Your task to perform on an android device: Go to Yahoo.com Image 0: 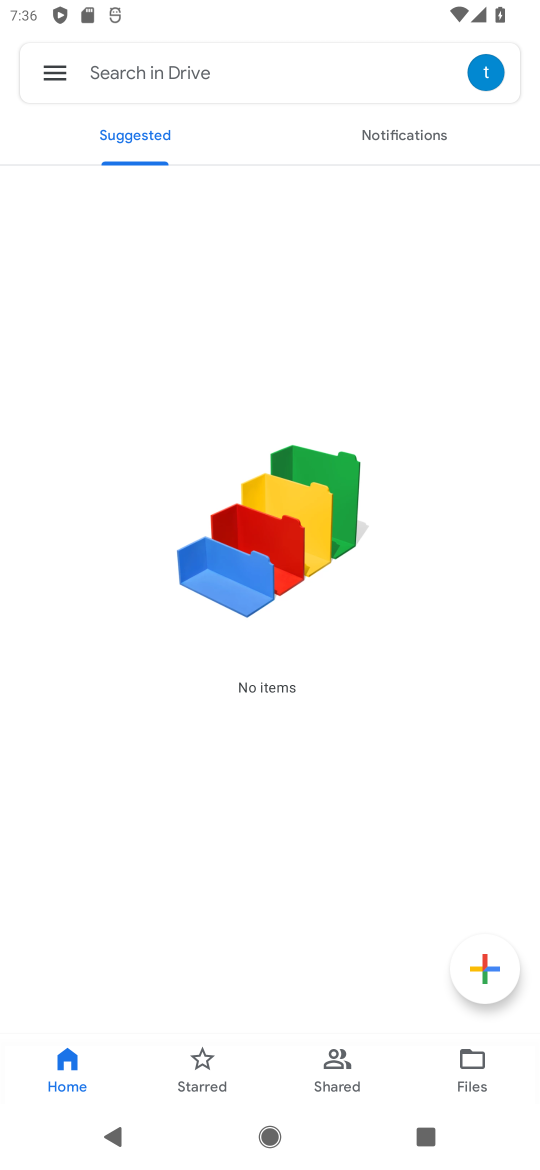
Step 0: press home button
Your task to perform on an android device: Go to Yahoo.com Image 1: 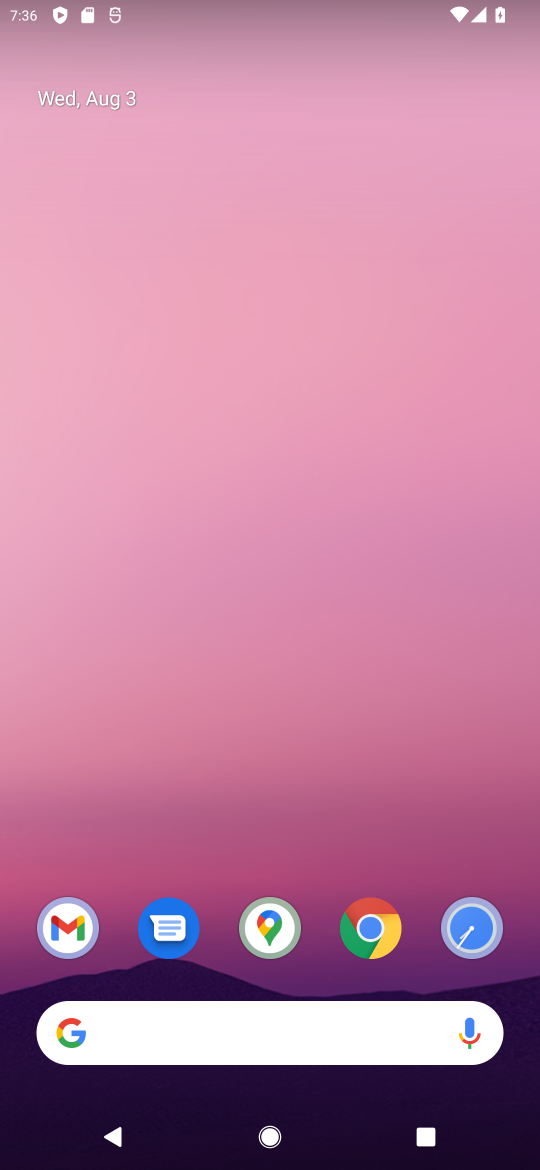
Step 1: click (372, 929)
Your task to perform on an android device: Go to Yahoo.com Image 2: 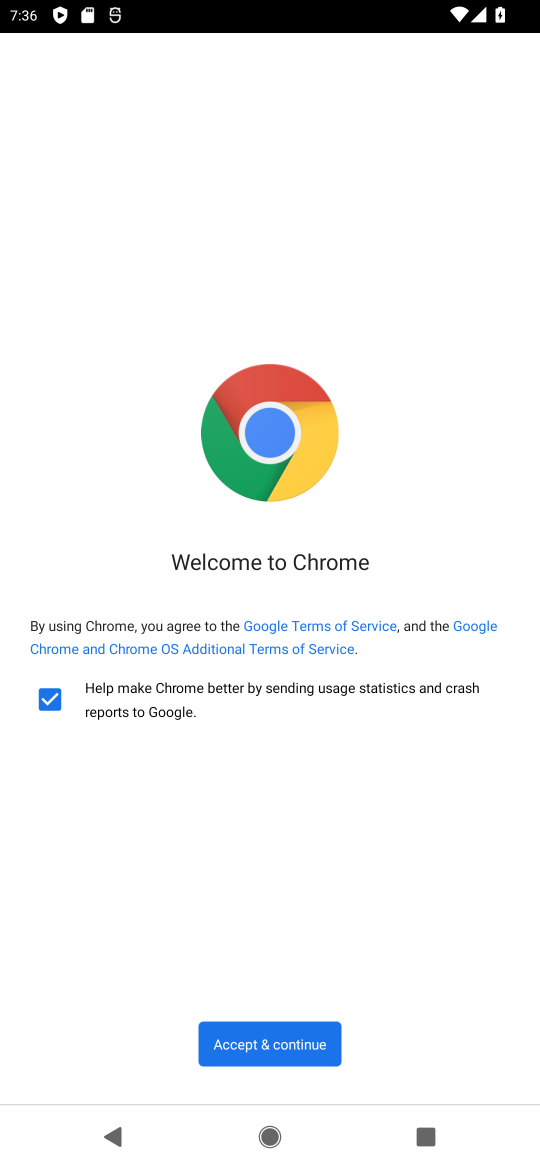
Step 2: click (292, 1039)
Your task to perform on an android device: Go to Yahoo.com Image 3: 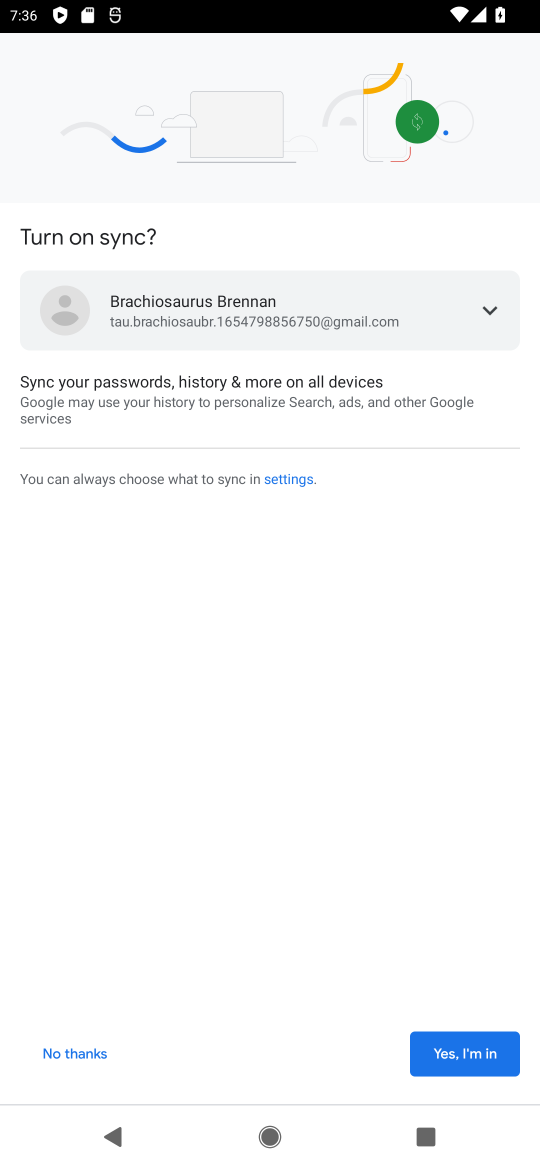
Step 3: click (450, 1047)
Your task to perform on an android device: Go to Yahoo.com Image 4: 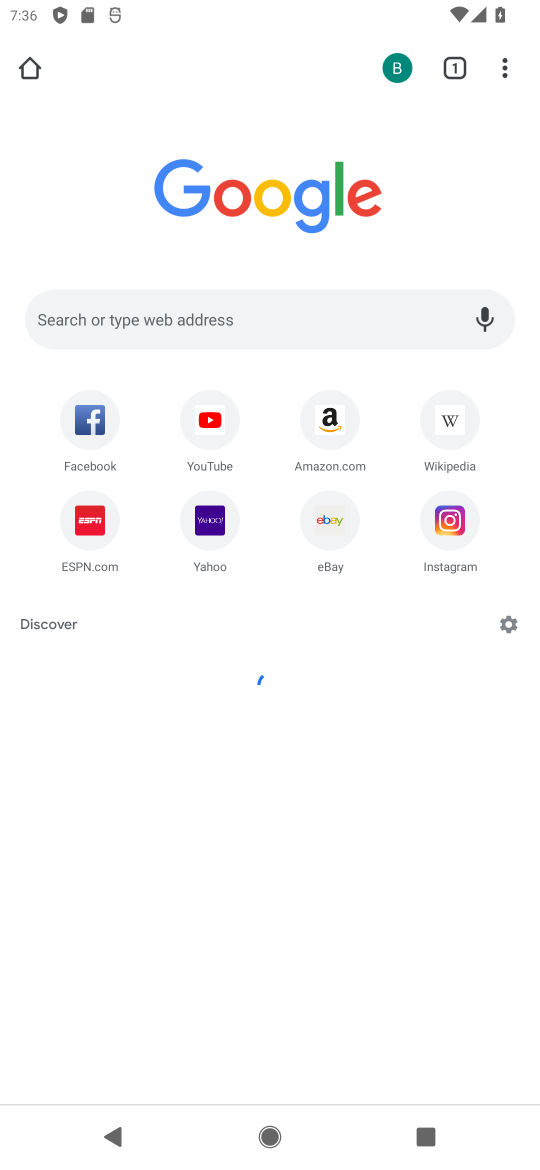
Step 4: click (199, 524)
Your task to perform on an android device: Go to Yahoo.com Image 5: 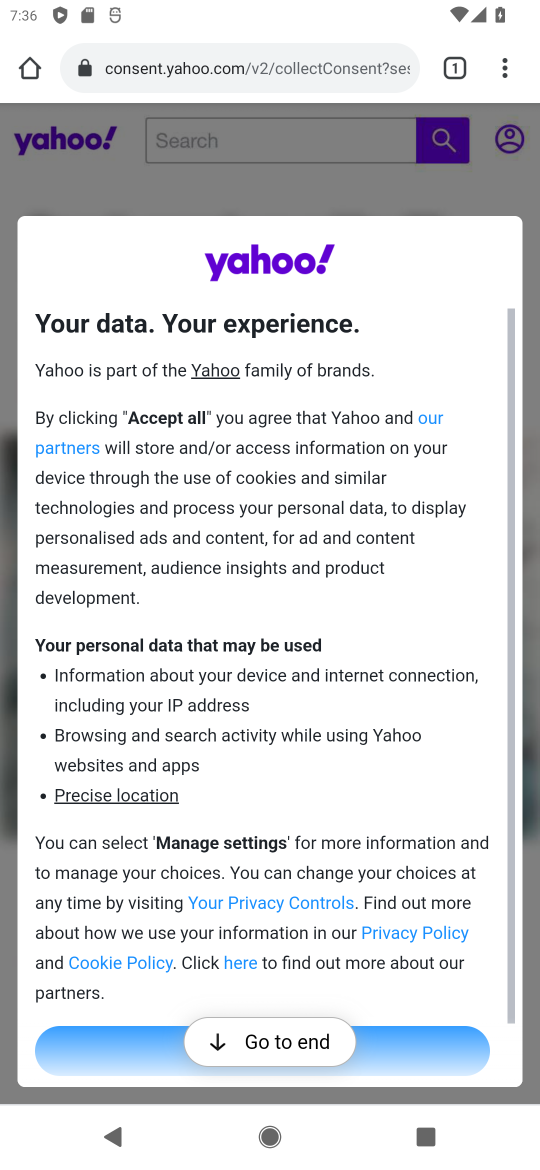
Step 5: task complete